Your task to perform on an android device: Open calendar and show me the third week of next month Image 0: 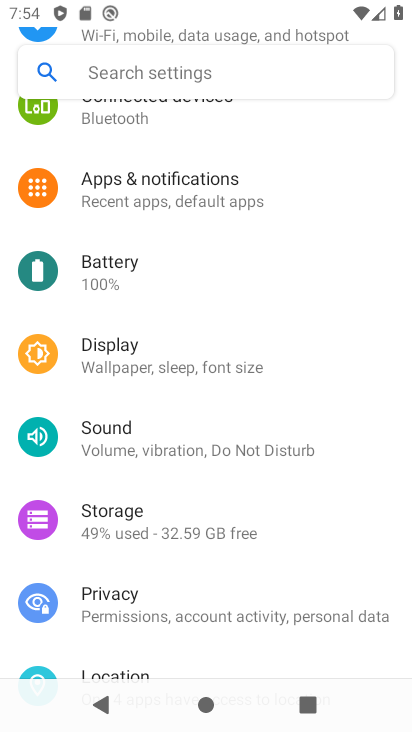
Step 0: press home button
Your task to perform on an android device: Open calendar and show me the third week of next month Image 1: 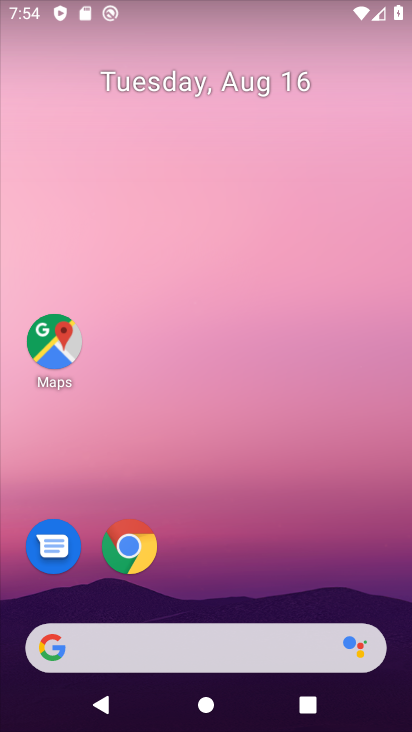
Step 1: click (217, 600)
Your task to perform on an android device: Open calendar and show me the third week of next month Image 2: 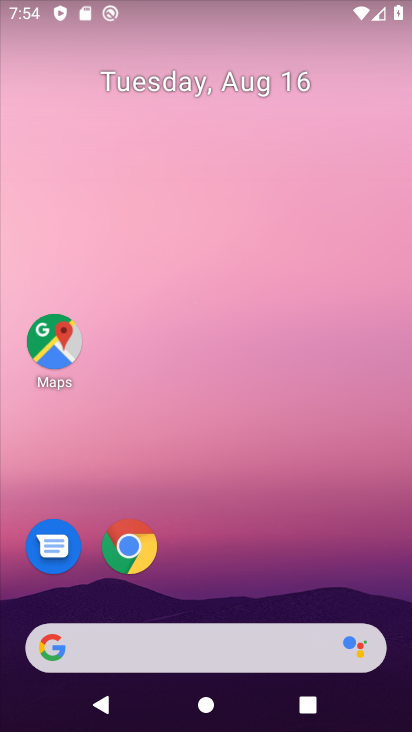
Step 2: drag from (184, 575) to (181, 2)
Your task to perform on an android device: Open calendar and show me the third week of next month Image 3: 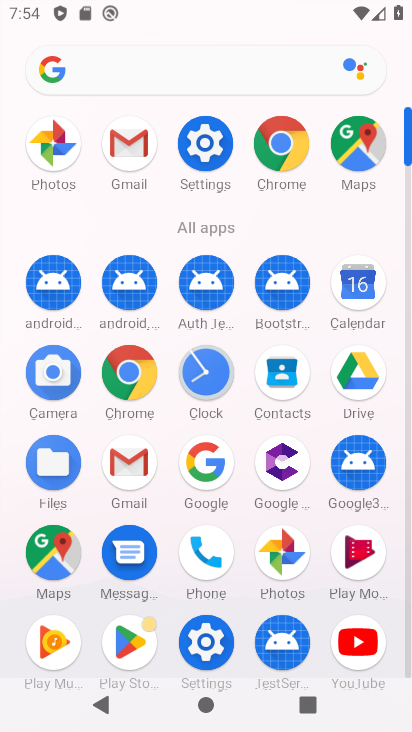
Step 3: click (368, 368)
Your task to perform on an android device: Open calendar and show me the third week of next month Image 4: 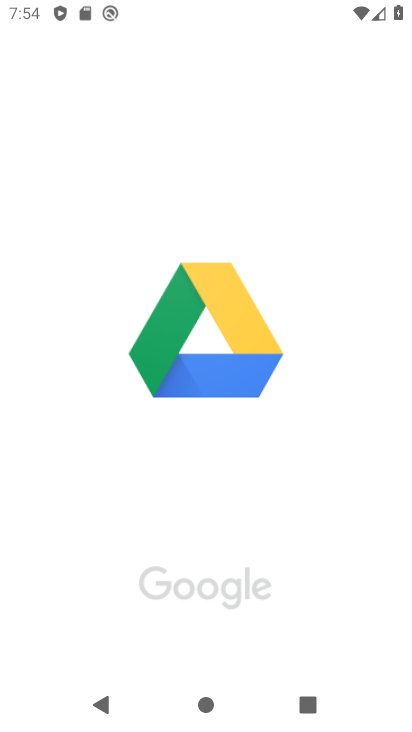
Step 4: press back button
Your task to perform on an android device: Open calendar and show me the third week of next month Image 5: 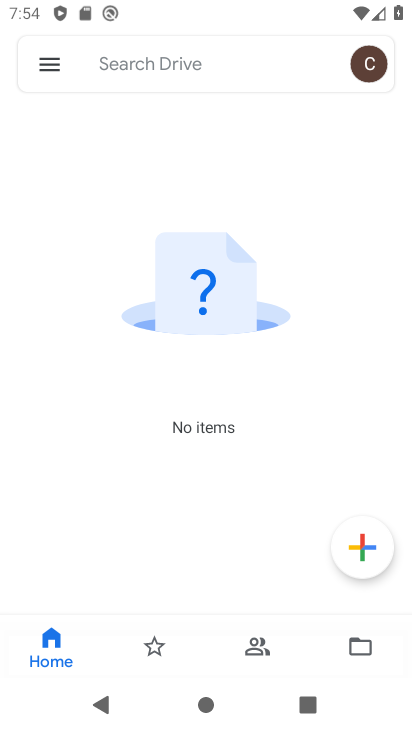
Step 5: press back button
Your task to perform on an android device: Open calendar and show me the third week of next month Image 6: 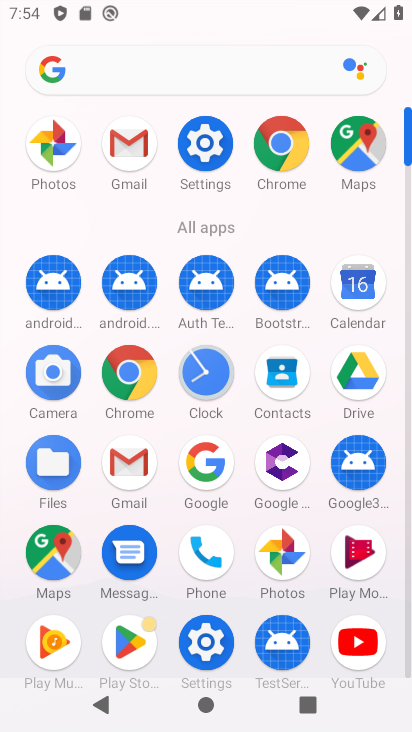
Step 6: click (372, 283)
Your task to perform on an android device: Open calendar and show me the third week of next month Image 7: 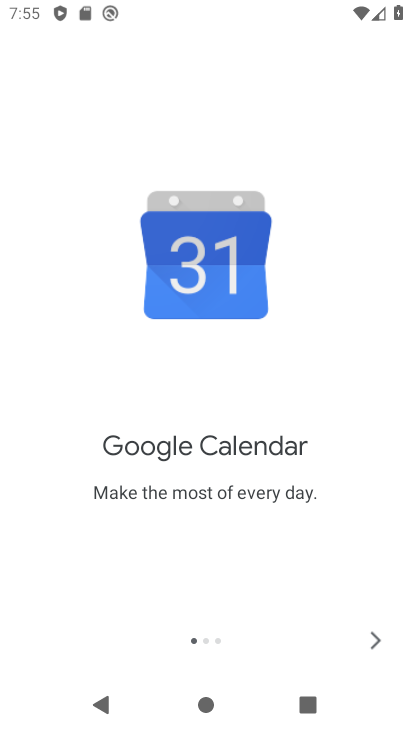
Step 7: click (378, 639)
Your task to perform on an android device: Open calendar and show me the third week of next month Image 8: 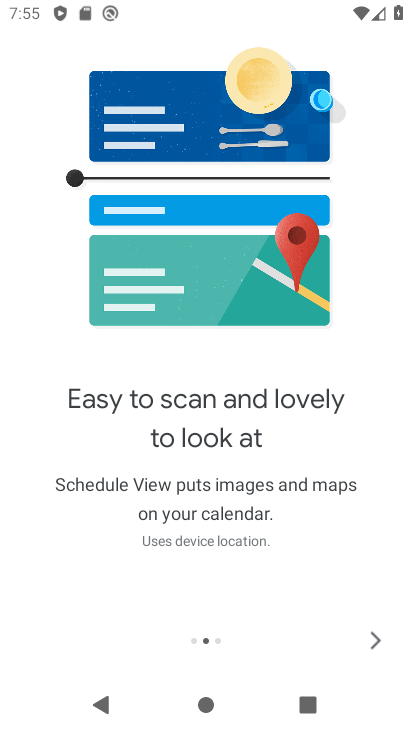
Step 8: click (378, 639)
Your task to perform on an android device: Open calendar and show me the third week of next month Image 9: 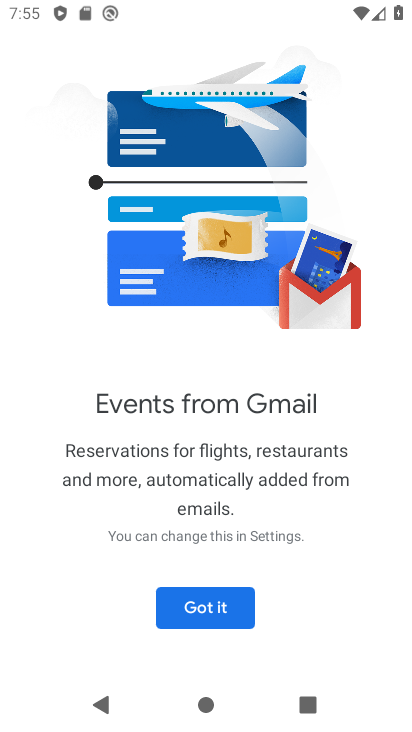
Step 9: click (202, 597)
Your task to perform on an android device: Open calendar and show me the third week of next month Image 10: 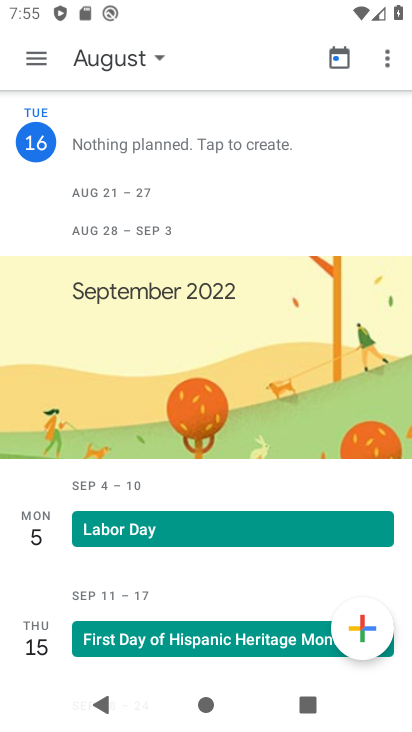
Step 10: click (27, 50)
Your task to perform on an android device: Open calendar and show me the third week of next month Image 11: 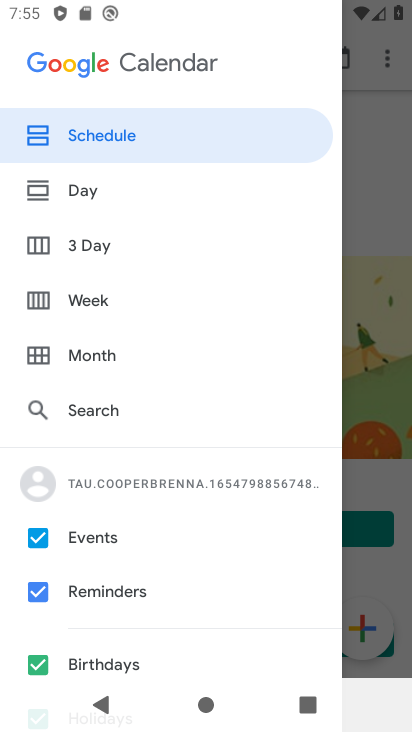
Step 11: click (65, 304)
Your task to perform on an android device: Open calendar and show me the third week of next month Image 12: 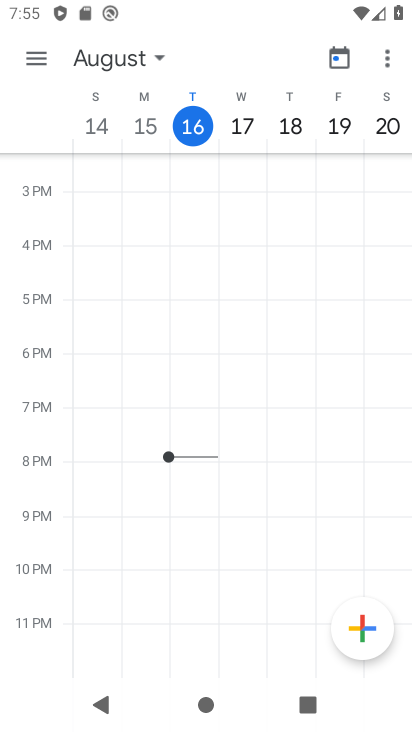
Step 12: click (116, 60)
Your task to perform on an android device: Open calendar and show me the third week of next month Image 13: 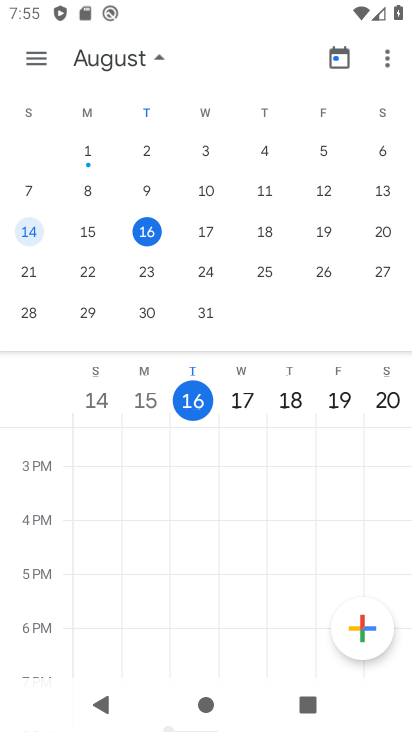
Step 13: drag from (367, 213) to (39, 255)
Your task to perform on an android device: Open calendar and show me the third week of next month Image 14: 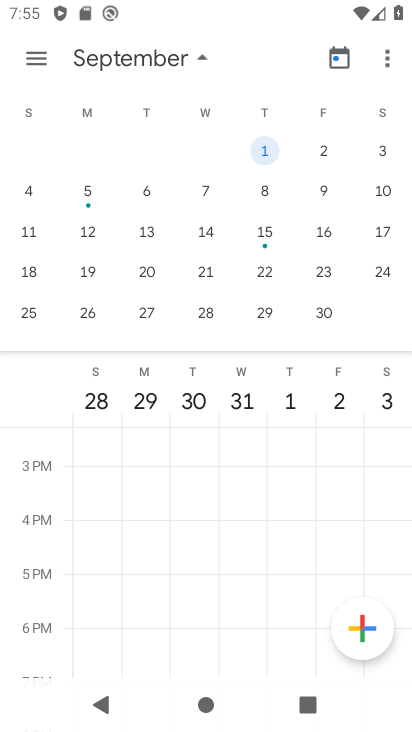
Step 14: click (23, 239)
Your task to perform on an android device: Open calendar and show me the third week of next month Image 15: 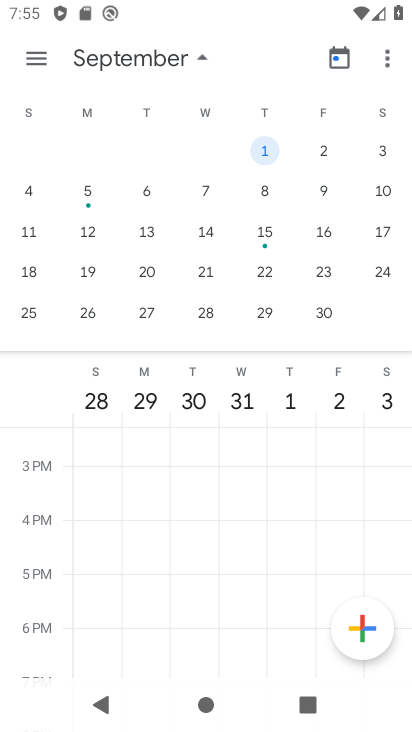
Step 15: click (23, 239)
Your task to perform on an android device: Open calendar and show me the third week of next month Image 16: 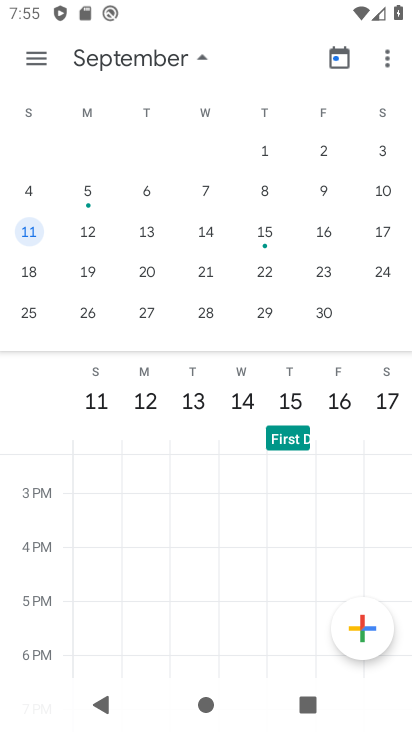
Step 16: task complete